Your task to perform on an android device: open device folders in google photos Image 0: 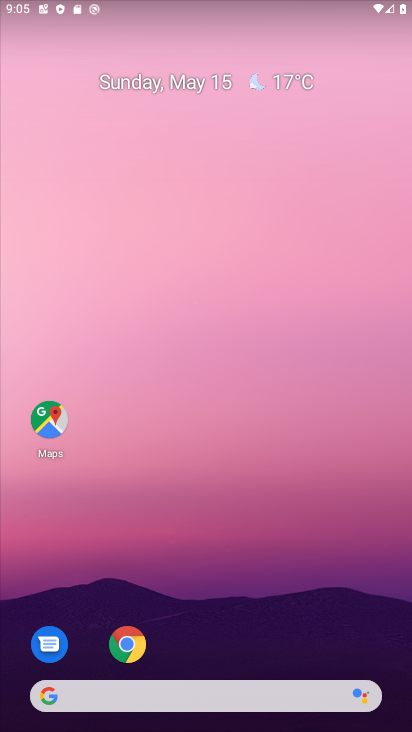
Step 0: drag from (236, 625) to (212, 175)
Your task to perform on an android device: open device folders in google photos Image 1: 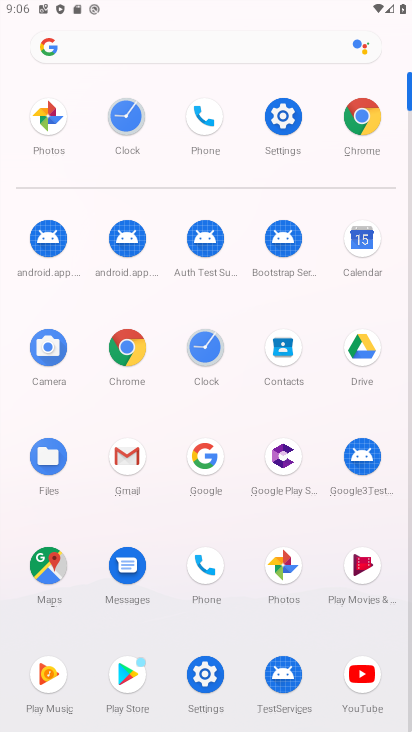
Step 1: click (287, 566)
Your task to perform on an android device: open device folders in google photos Image 2: 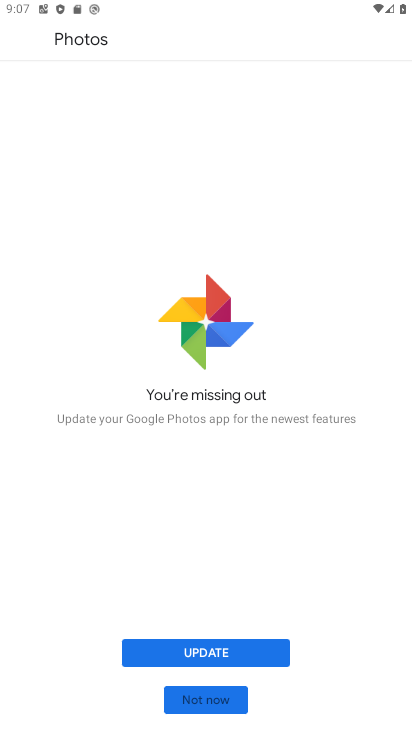
Step 2: drag from (208, 705) to (276, 600)
Your task to perform on an android device: open device folders in google photos Image 3: 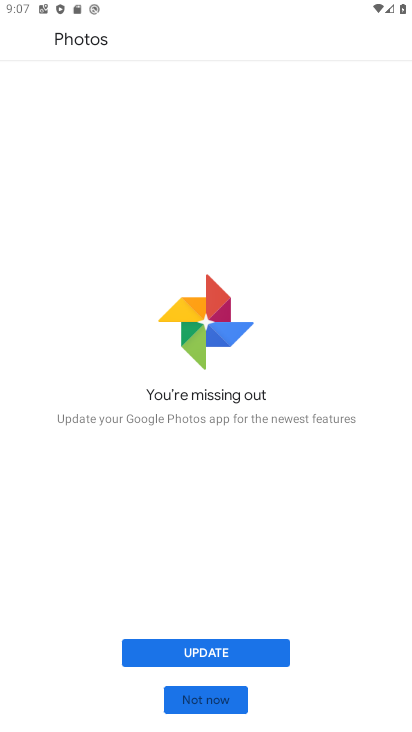
Step 3: click (231, 650)
Your task to perform on an android device: open device folders in google photos Image 4: 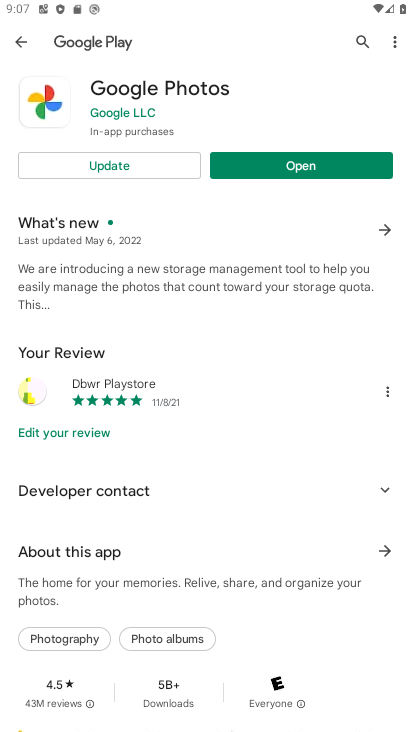
Step 4: click (281, 172)
Your task to perform on an android device: open device folders in google photos Image 5: 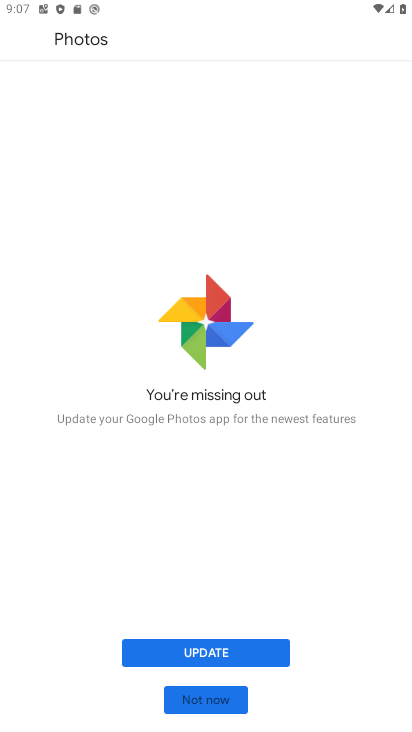
Step 5: click (186, 707)
Your task to perform on an android device: open device folders in google photos Image 6: 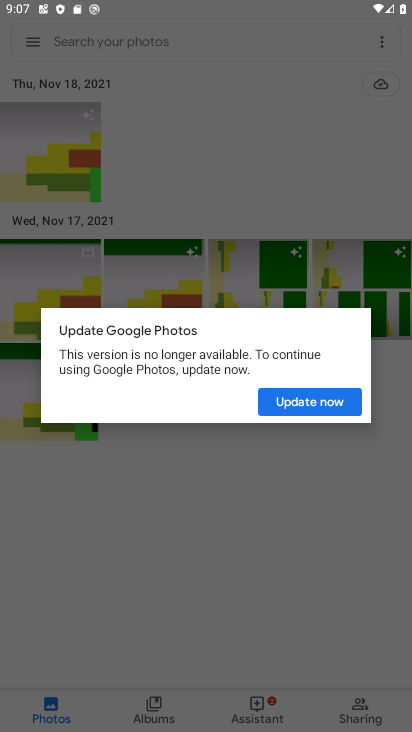
Step 6: click (313, 399)
Your task to perform on an android device: open device folders in google photos Image 7: 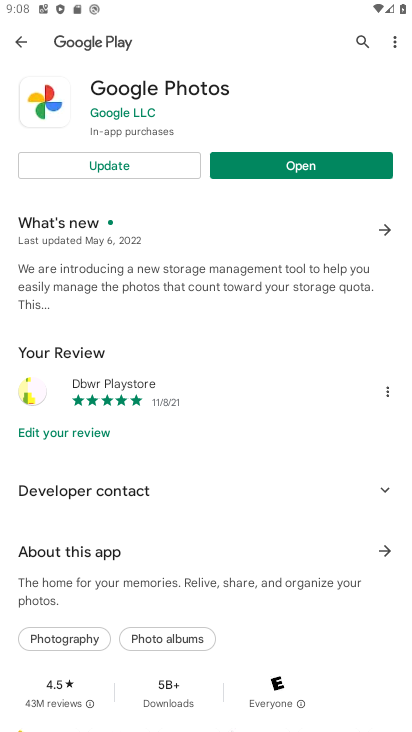
Step 7: click (297, 155)
Your task to perform on an android device: open device folders in google photos Image 8: 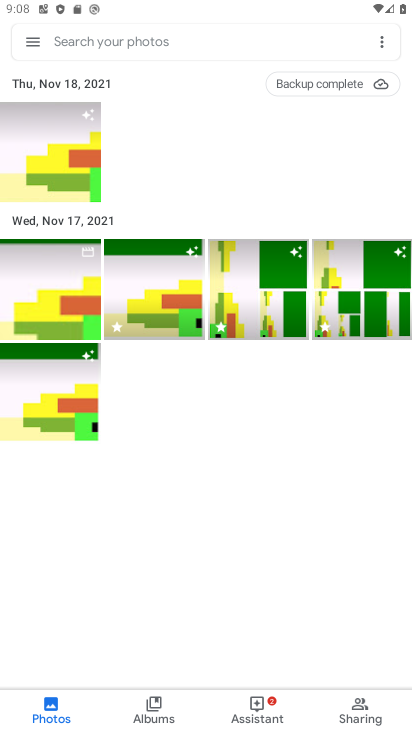
Step 8: click (36, 44)
Your task to perform on an android device: open device folders in google photos Image 9: 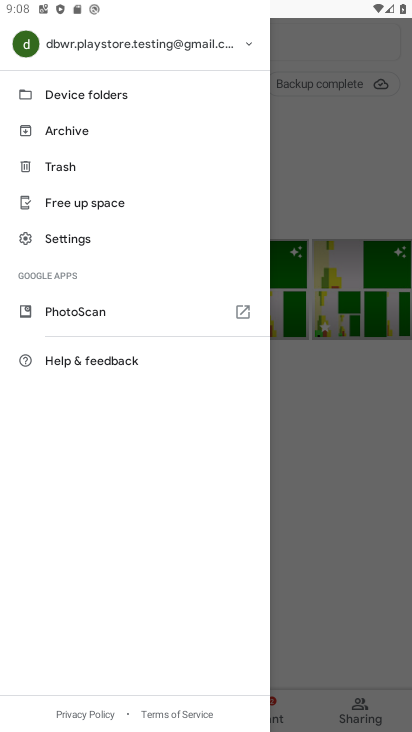
Step 9: click (106, 99)
Your task to perform on an android device: open device folders in google photos Image 10: 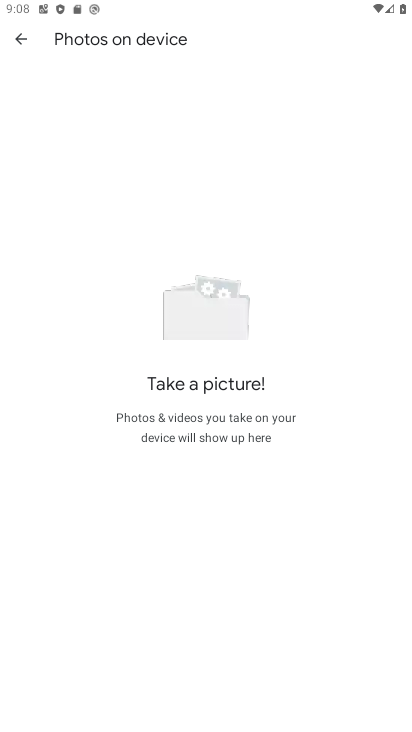
Step 10: task complete